Your task to perform on an android device: Open Google Chrome Image 0: 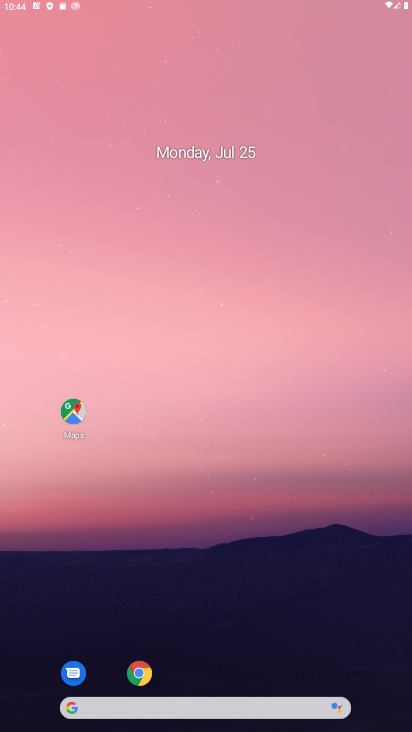
Step 0: press home button
Your task to perform on an android device: Open Google Chrome Image 1: 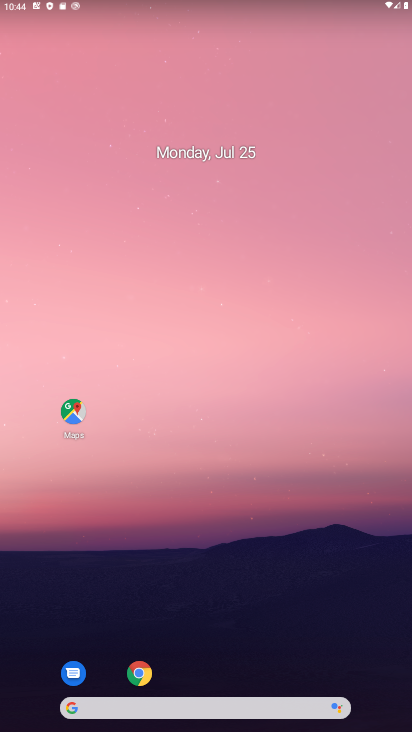
Step 1: click (139, 670)
Your task to perform on an android device: Open Google Chrome Image 2: 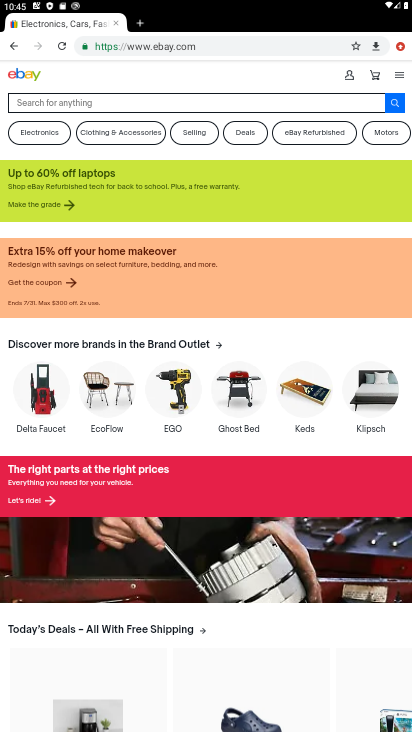
Step 2: click (136, 20)
Your task to perform on an android device: Open Google Chrome Image 3: 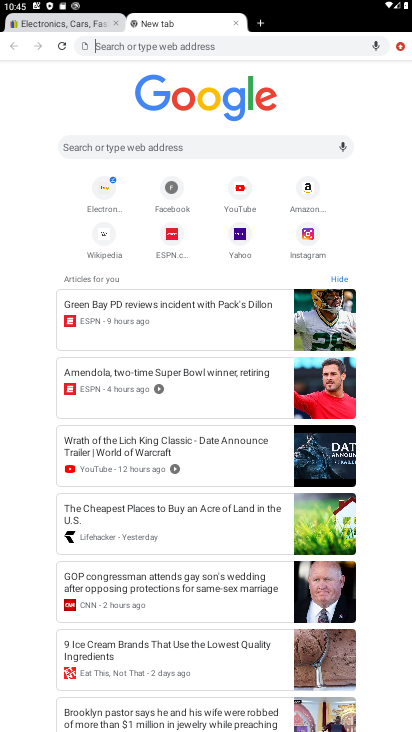
Step 3: task complete